Your task to perform on an android device: delete browsing data in the chrome app Image 0: 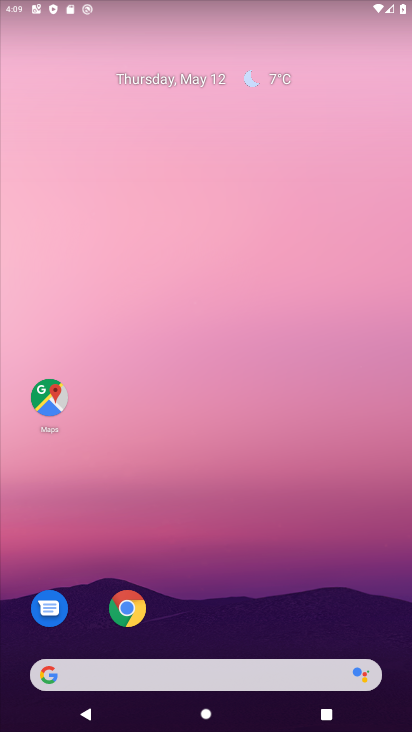
Step 0: click (132, 607)
Your task to perform on an android device: delete browsing data in the chrome app Image 1: 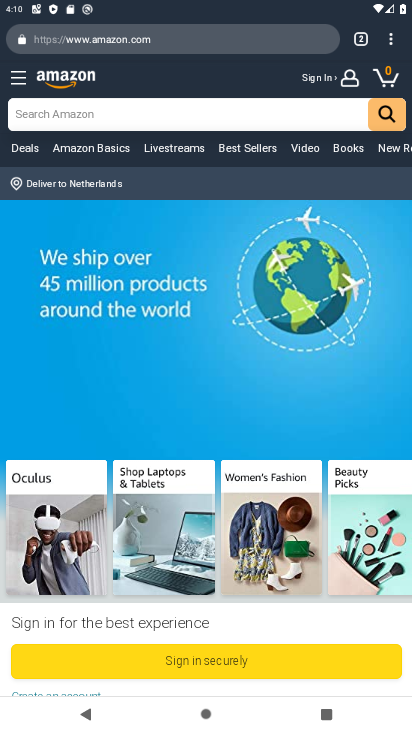
Step 1: click (385, 43)
Your task to perform on an android device: delete browsing data in the chrome app Image 2: 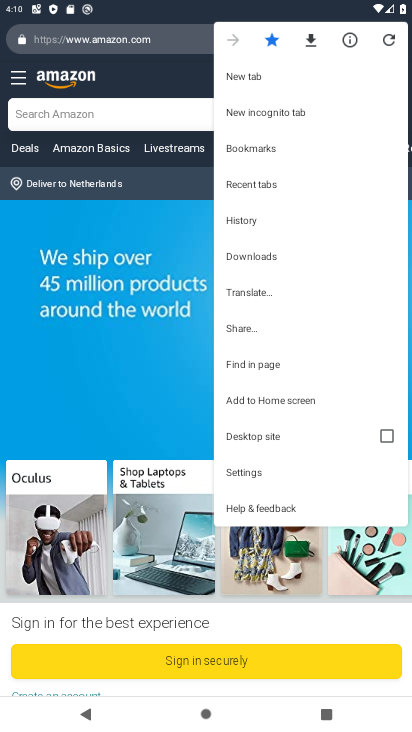
Step 2: click (239, 223)
Your task to perform on an android device: delete browsing data in the chrome app Image 3: 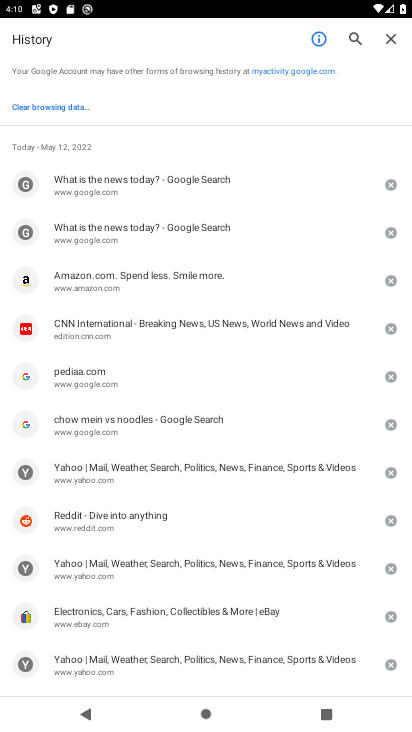
Step 3: click (67, 100)
Your task to perform on an android device: delete browsing data in the chrome app Image 4: 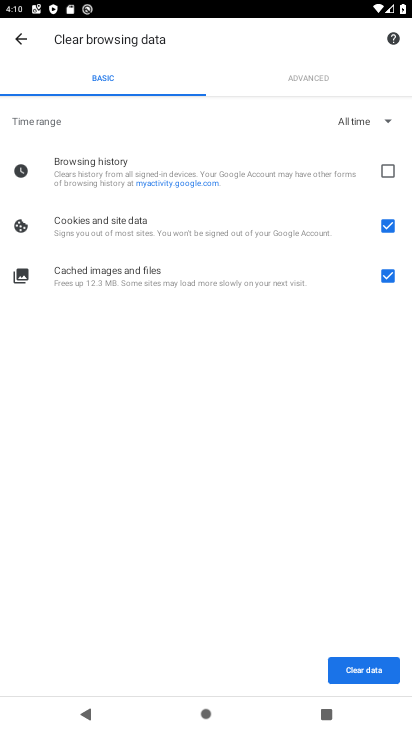
Step 4: click (388, 224)
Your task to perform on an android device: delete browsing data in the chrome app Image 5: 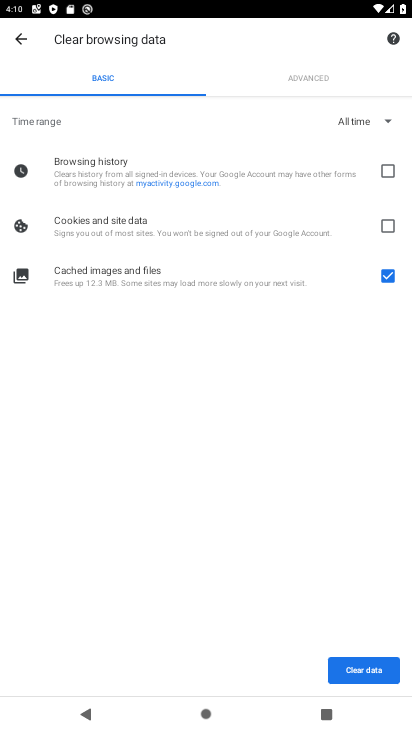
Step 5: click (384, 276)
Your task to perform on an android device: delete browsing data in the chrome app Image 6: 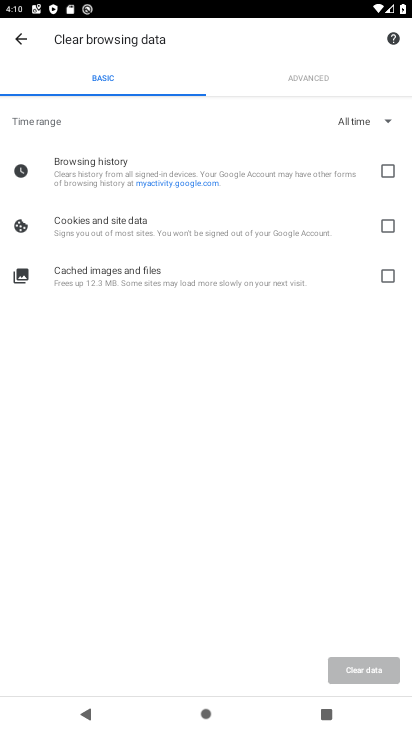
Step 6: click (388, 169)
Your task to perform on an android device: delete browsing data in the chrome app Image 7: 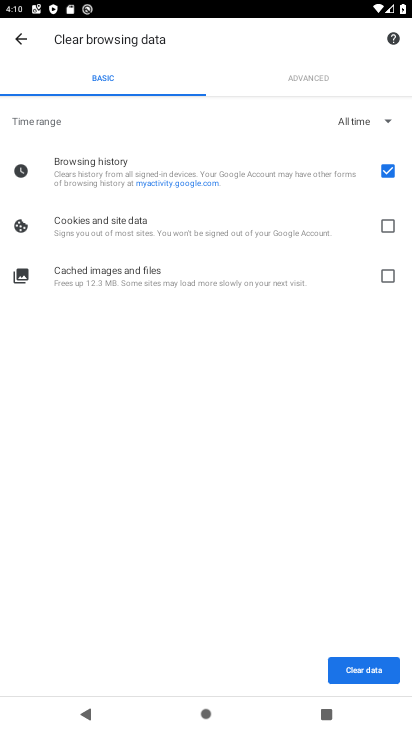
Step 7: click (348, 659)
Your task to perform on an android device: delete browsing data in the chrome app Image 8: 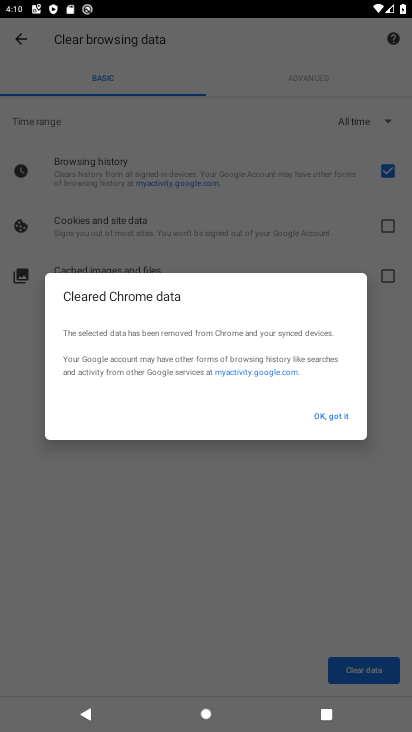
Step 8: click (322, 411)
Your task to perform on an android device: delete browsing data in the chrome app Image 9: 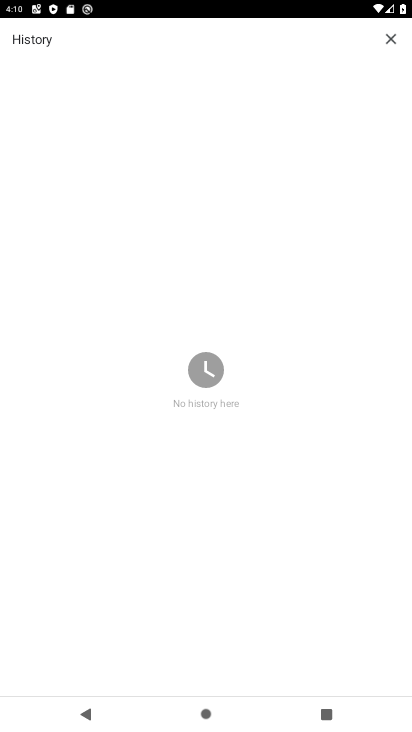
Step 9: task complete